Your task to perform on an android device: turn pop-ups off in chrome Image 0: 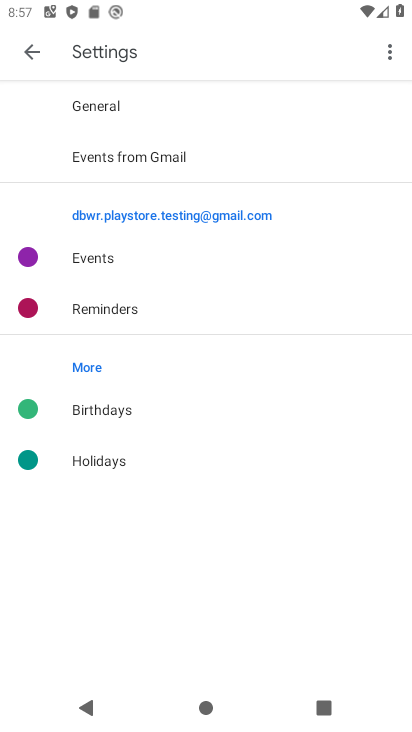
Step 0: press home button
Your task to perform on an android device: turn pop-ups off in chrome Image 1: 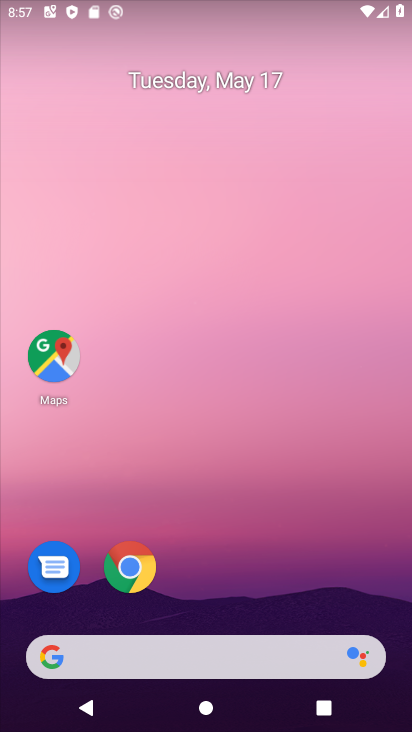
Step 1: click (127, 564)
Your task to perform on an android device: turn pop-ups off in chrome Image 2: 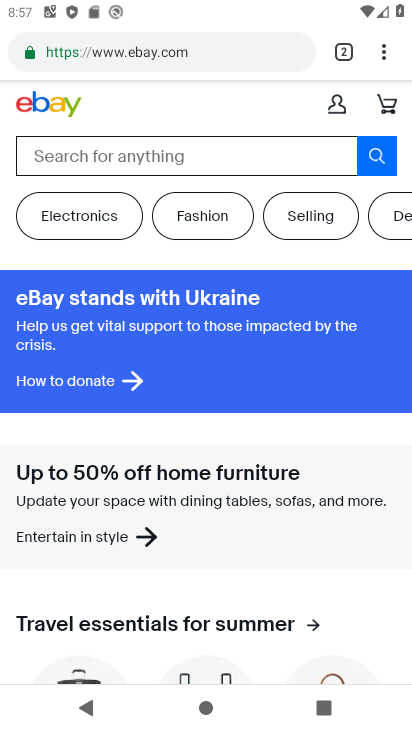
Step 2: click (383, 49)
Your task to perform on an android device: turn pop-ups off in chrome Image 3: 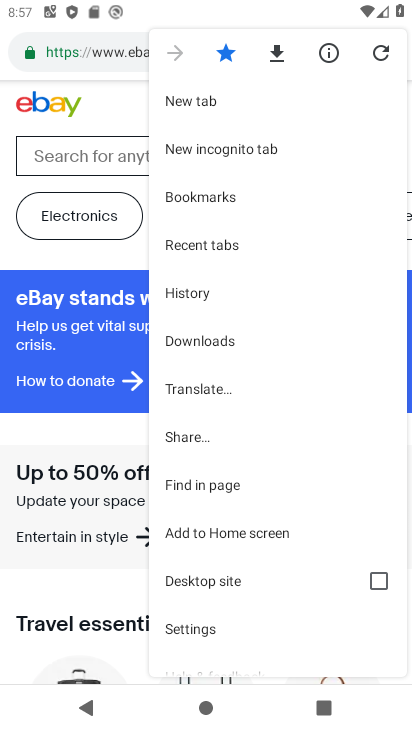
Step 3: drag from (244, 608) to (218, 321)
Your task to perform on an android device: turn pop-ups off in chrome Image 4: 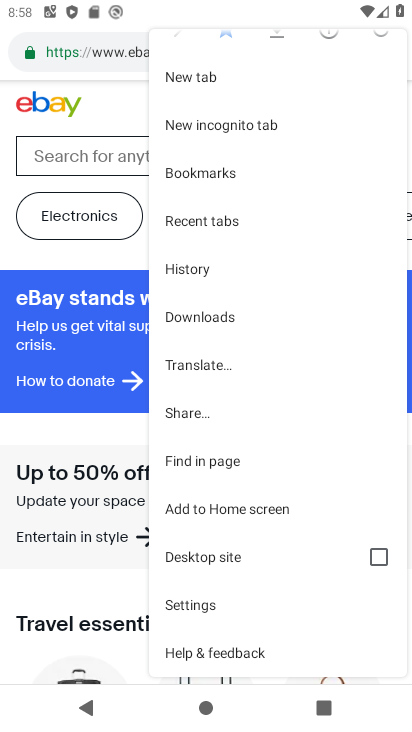
Step 4: click (195, 604)
Your task to perform on an android device: turn pop-ups off in chrome Image 5: 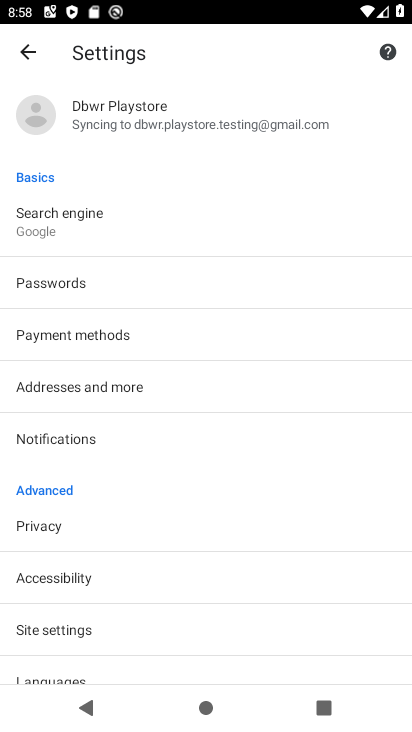
Step 5: drag from (197, 472) to (167, 229)
Your task to perform on an android device: turn pop-ups off in chrome Image 6: 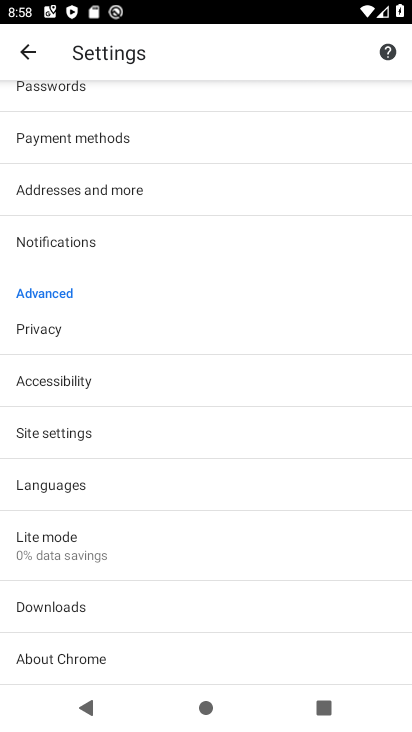
Step 6: click (54, 433)
Your task to perform on an android device: turn pop-ups off in chrome Image 7: 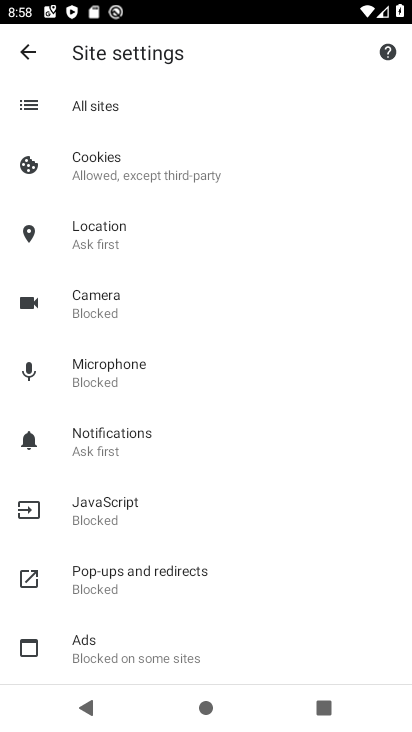
Step 7: drag from (251, 512) to (200, 260)
Your task to perform on an android device: turn pop-ups off in chrome Image 8: 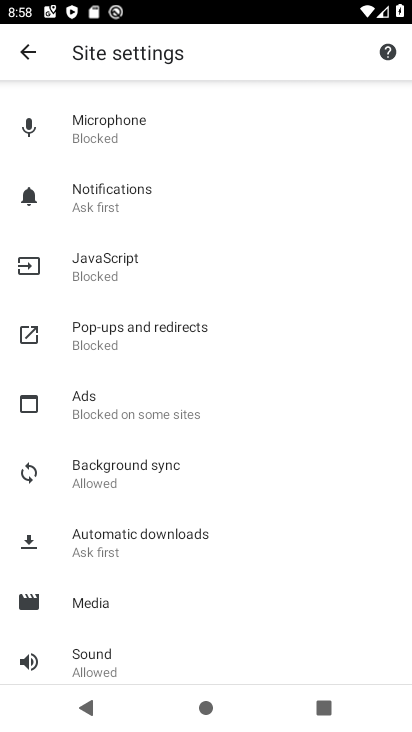
Step 8: click (125, 325)
Your task to perform on an android device: turn pop-ups off in chrome Image 9: 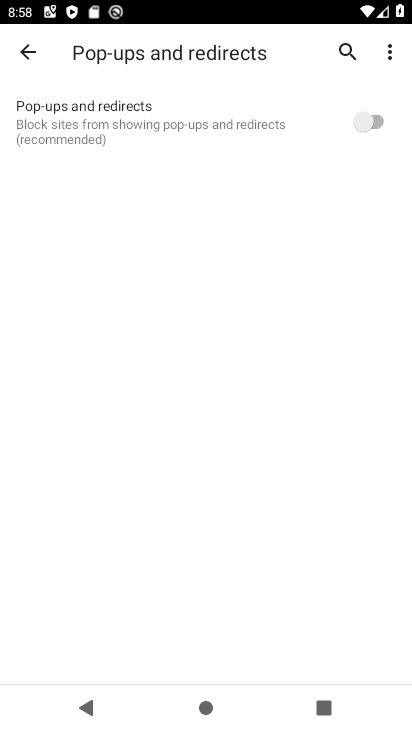
Step 9: task complete